Your task to perform on an android device: Go to Maps Image 0: 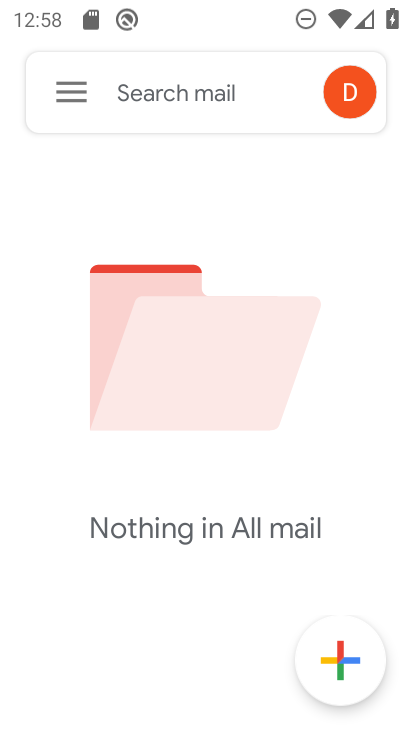
Step 0: press home button
Your task to perform on an android device: Go to Maps Image 1: 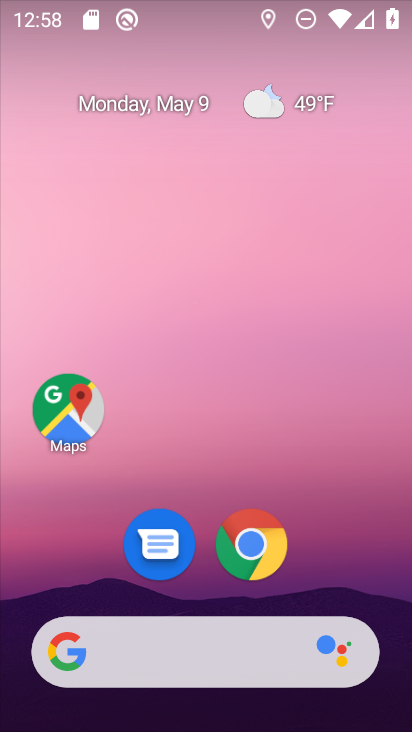
Step 1: drag from (332, 527) to (318, 0)
Your task to perform on an android device: Go to Maps Image 2: 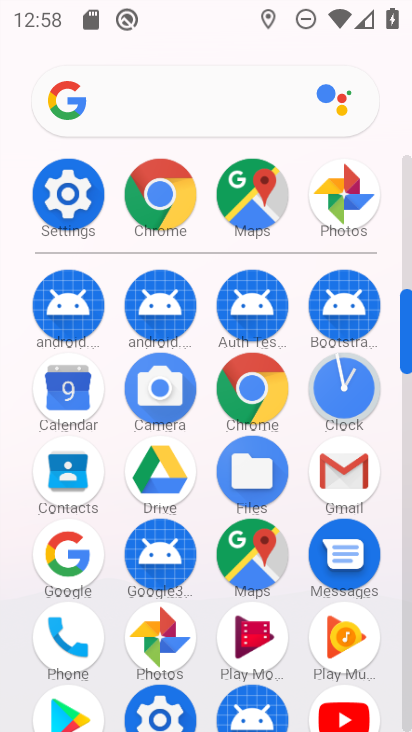
Step 2: click (241, 579)
Your task to perform on an android device: Go to Maps Image 3: 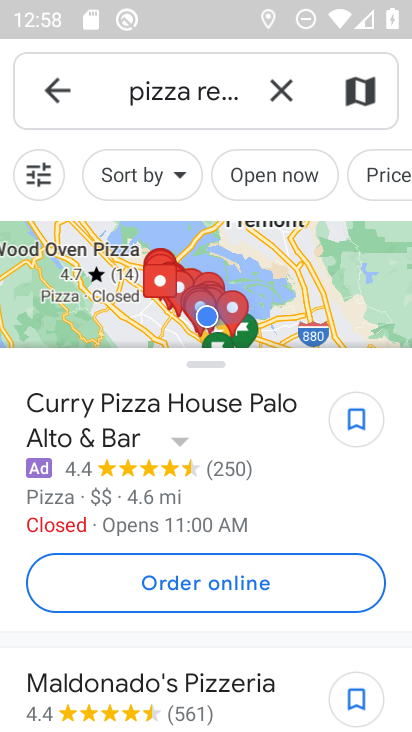
Step 3: task complete